Your task to perform on an android device: Show me recent news Image 0: 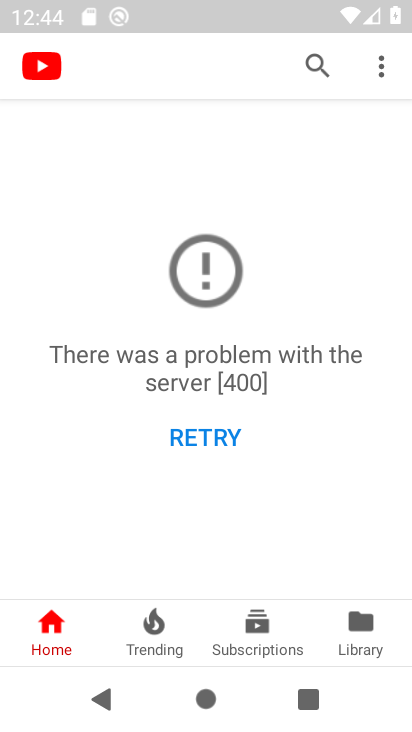
Step 0: press home button
Your task to perform on an android device: Show me recent news Image 1: 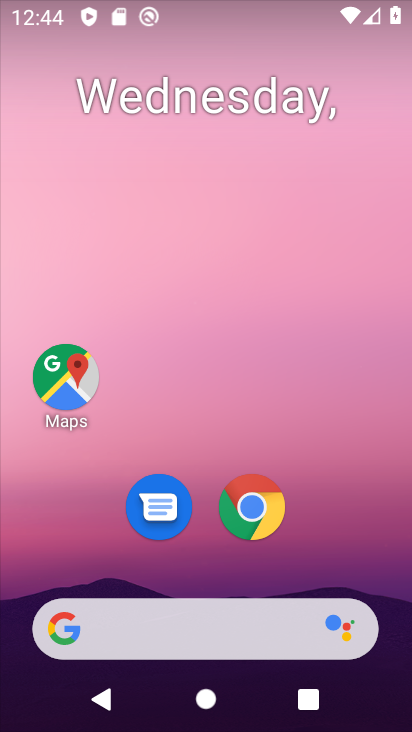
Step 1: click (71, 621)
Your task to perform on an android device: Show me recent news Image 2: 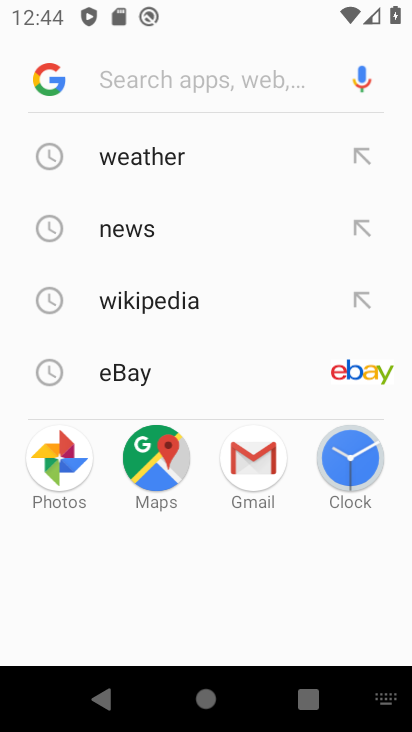
Step 2: click (124, 225)
Your task to perform on an android device: Show me recent news Image 3: 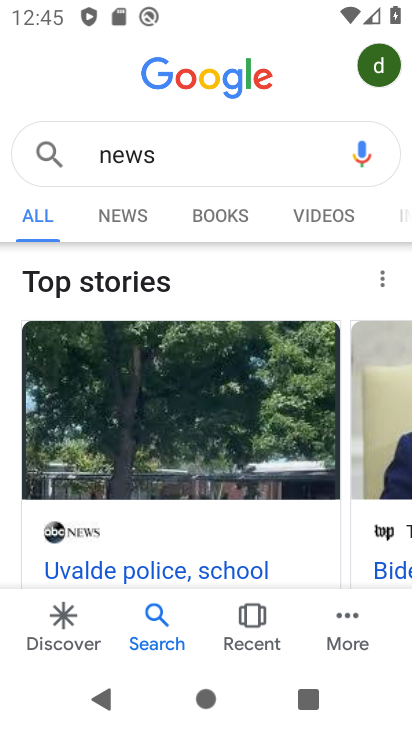
Step 3: click (128, 220)
Your task to perform on an android device: Show me recent news Image 4: 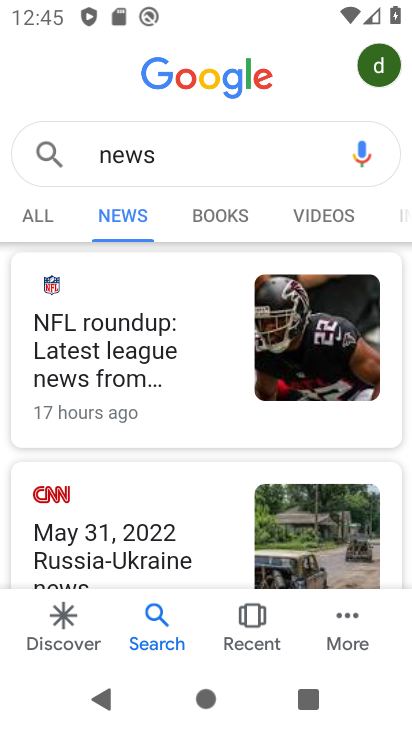
Step 4: task complete